Your task to perform on an android device: Open my contact list Image 0: 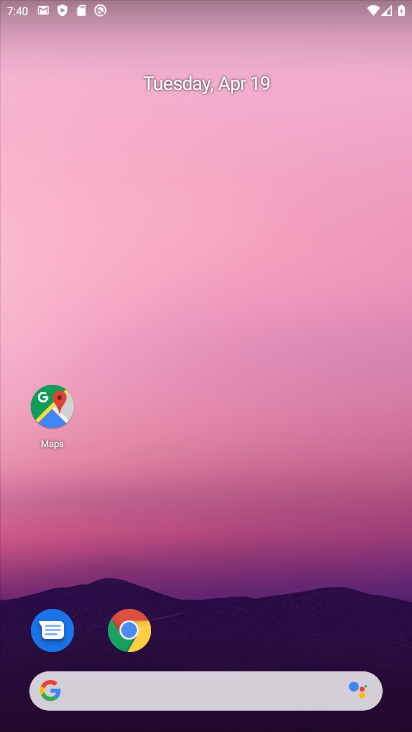
Step 0: drag from (178, 353) to (142, 44)
Your task to perform on an android device: Open my contact list Image 1: 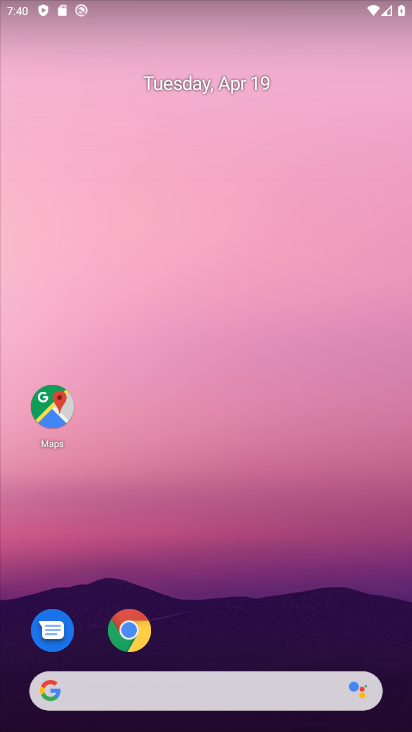
Step 1: drag from (280, 619) to (114, 5)
Your task to perform on an android device: Open my contact list Image 2: 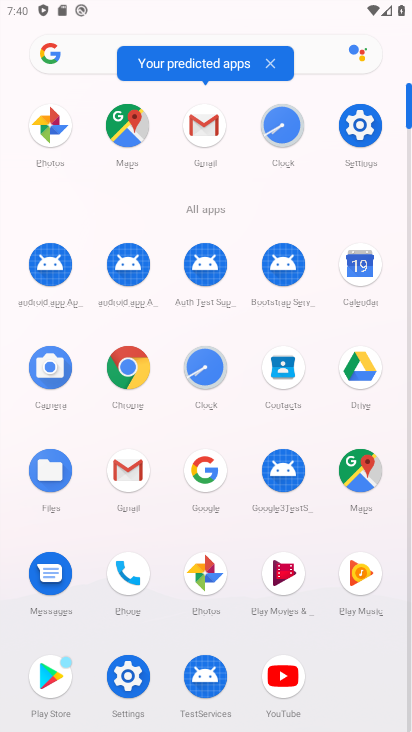
Step 2: drag from (5, 470) to (0, 235)
Your task to perform on an android device: Open my contact list Image 3: 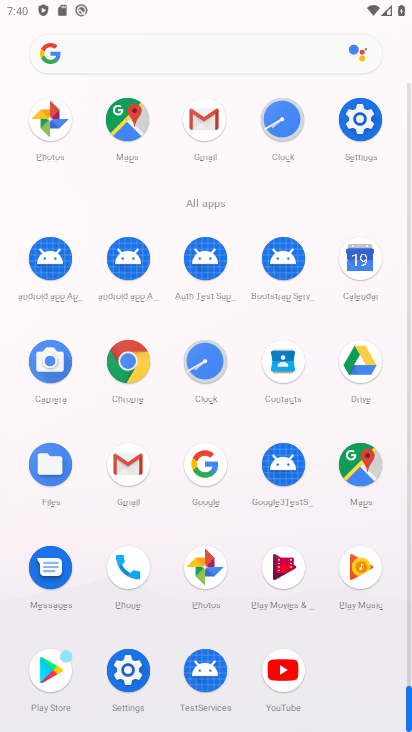
Step 3: drag from (15, 518) to (13, 222)
Your task to perform on an android device: Open my contact list Image 4: 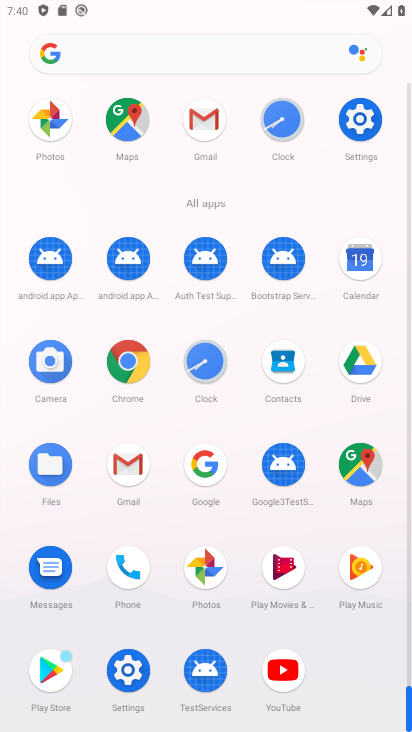
Step 4: click (282, 353)
Your task to perform on an android device: Open my contact list Image 5: 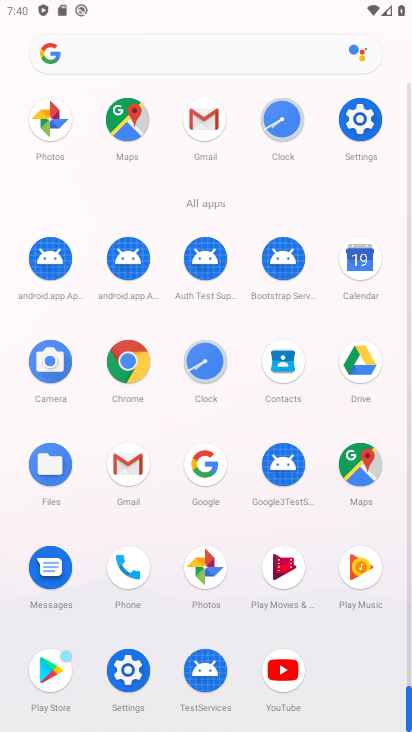
Step 5: click (282, 356)
Your task to perform on an android device: Open my contact list Image 6: 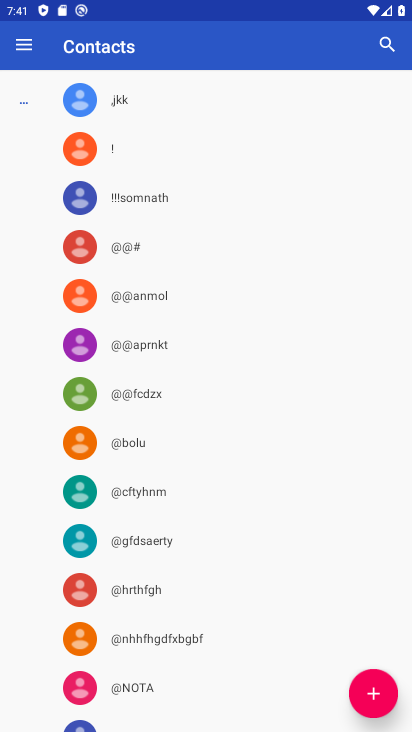
Step 6: task complete